Your task to perform on an android device: Show me popular games on the Play Store Image 0: 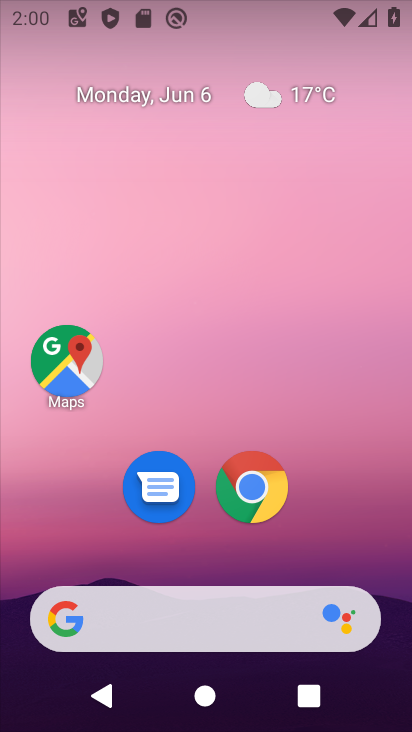
Step 0: drag from (82, 550) to (165, 154)
Your task to perform on an android device: Show me popular games on the Play Store Image 1: 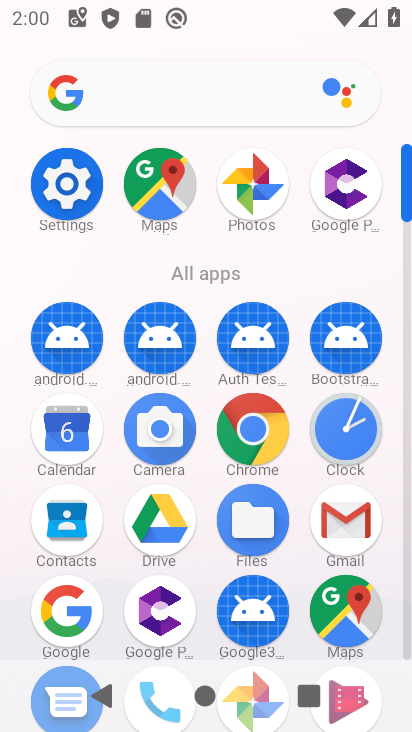
Step 1: drag from (122, 557) to (213, 314)
Your task to perform on an android device: Show me popular games on the Play Store Image 2: 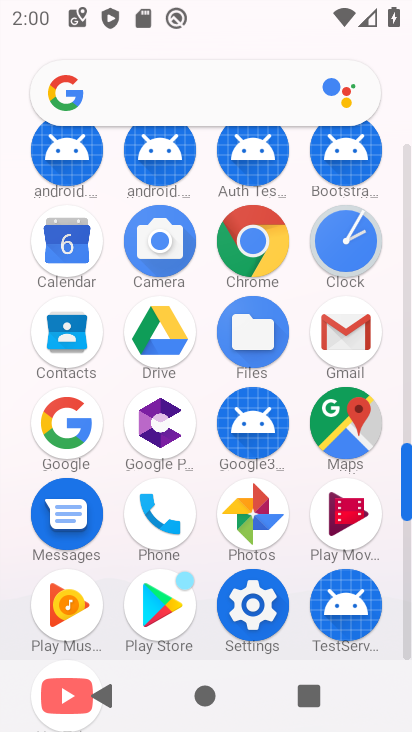
Step 2: click (143, 599)
Your task to perform on an android device: Show me popular games on the Play Store Image 3: 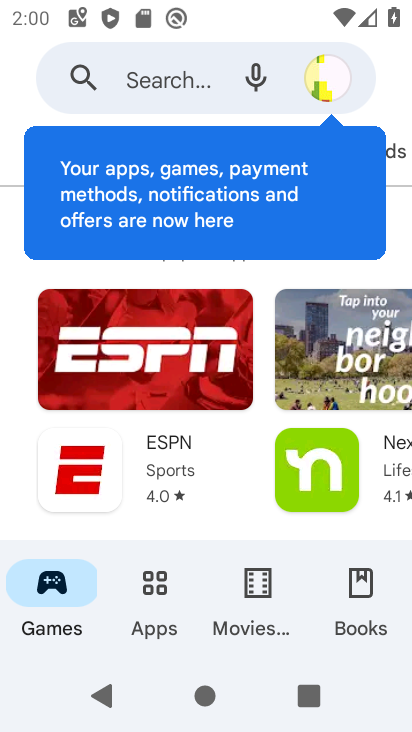
Step 3: drag from (187, 506) to (343, 56)
Your task to perform on an android device: Show me popular games on the Play Store Image 4: 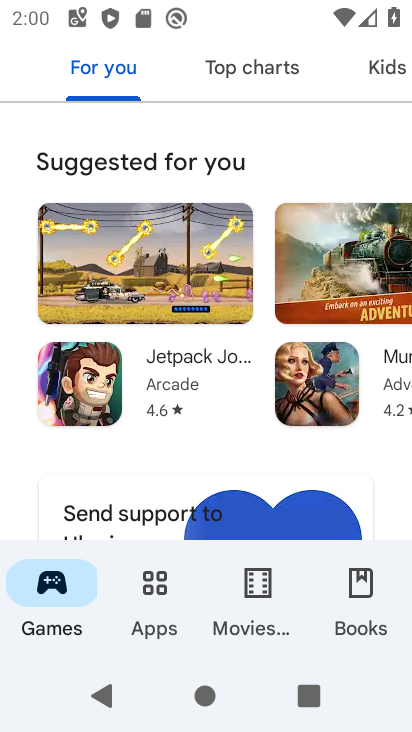
Step 4: drag from (158, 468) to (270, 55)
Your task to perform on an android device: Show me popular games on the Play Store Image 5: 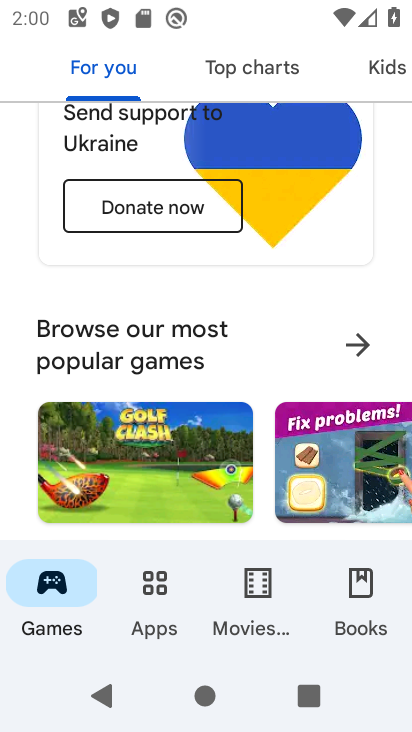
Step 5: click (348, 343)
Your task to perform on an android device: Show me popular games on the Play Store Image 6: 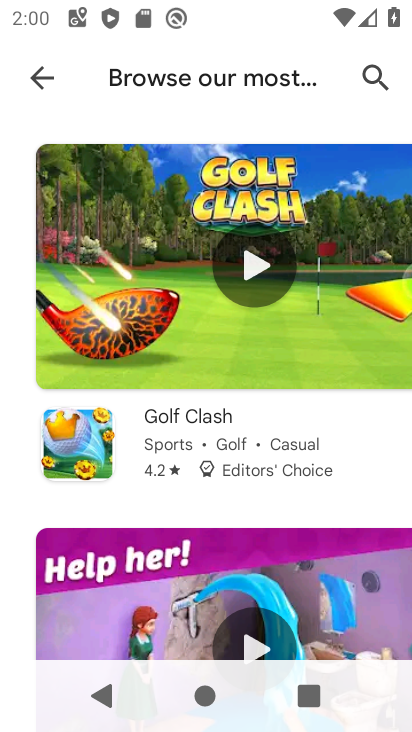
Step 6: task complete